Your task to perform on an android device: turn on location history Image 0: 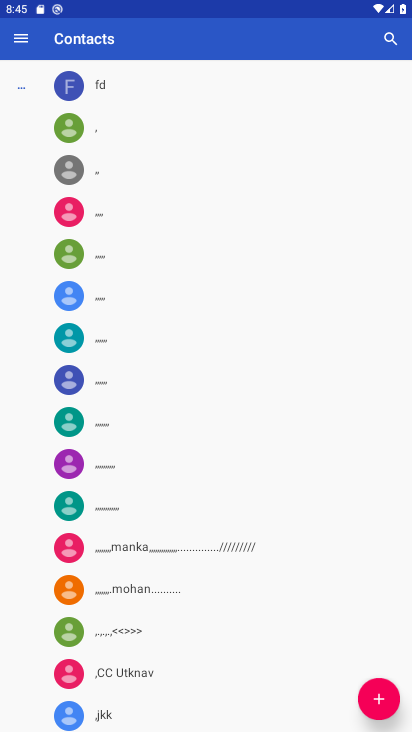
Step 0: press home button
Your task to perform on an android device: turn on location history Image 1: 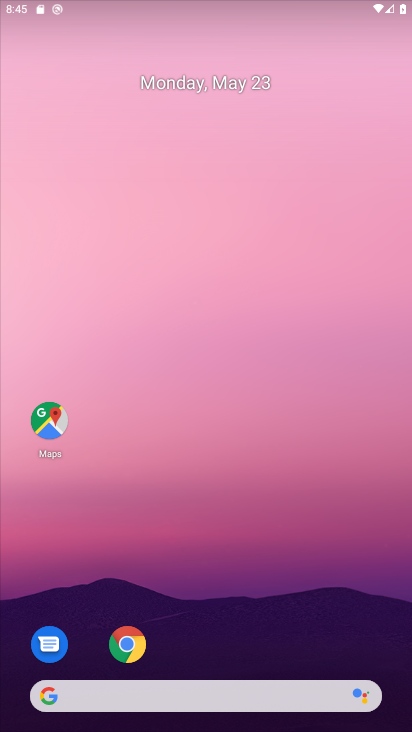
Step 1: drag from (304, 623) to (299, 123)
Your task to perform on an android device: turn on location history Image 2: 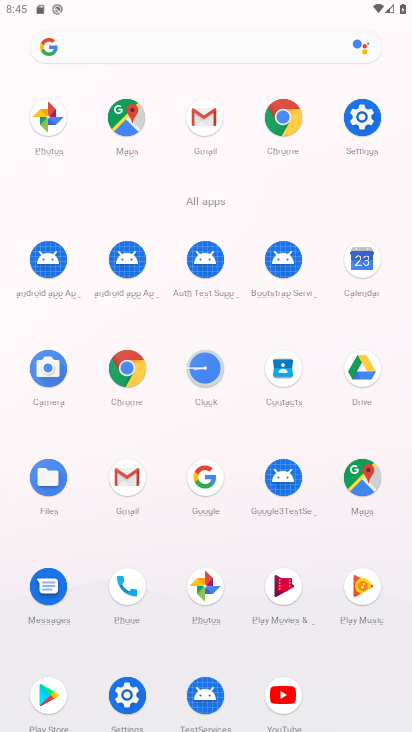
Step 2: click (351, 126)
Your task to perform on an android device: turn on location history Image 3: 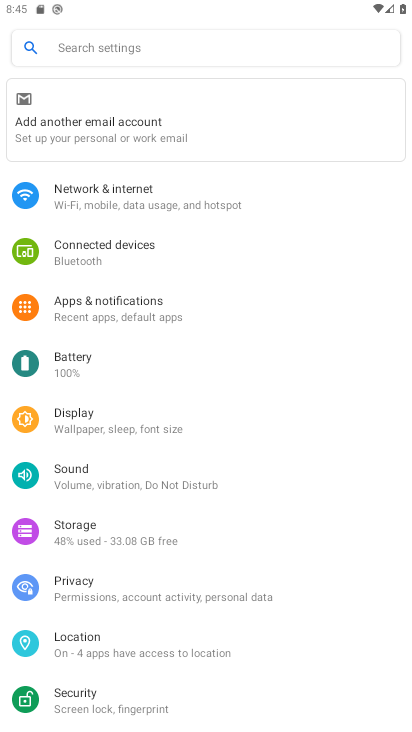
Step 3: click (118, 633)
Your task to perform on an android device: turn on location history Image 4: 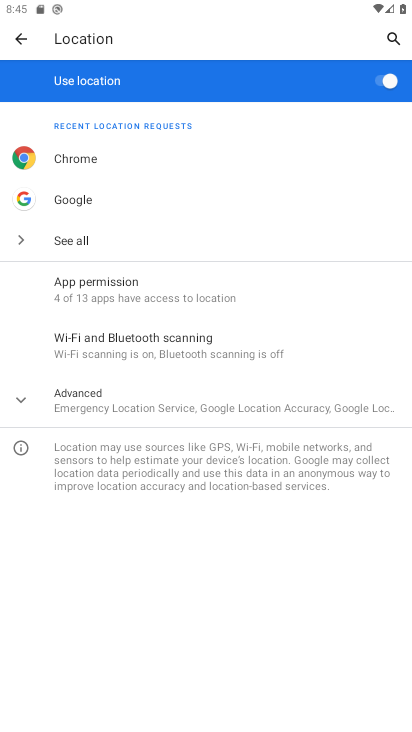
Step 4: click (129, 400)
Your task to perform on an android device: turn on location history Image 5: 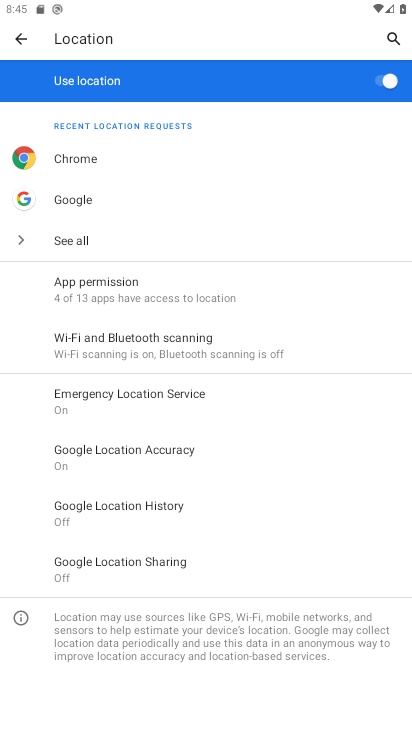
Step 5: click (161, 512)
Your task to perform on an android device: turn on location history Image 6: 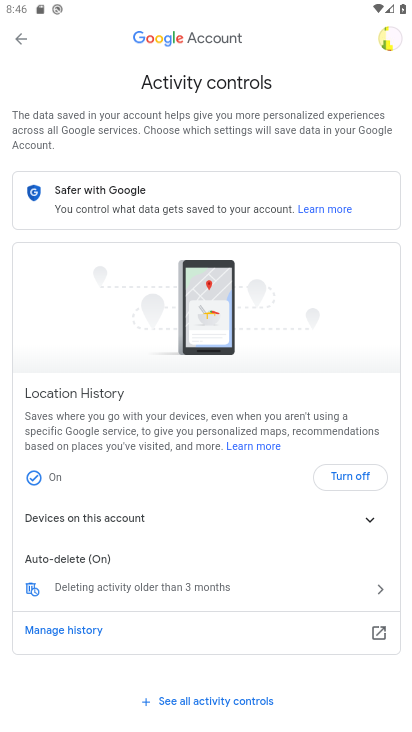
Step 6: task complete